Your task to perform on an android device: turn off smart reply in the gmail app Image 0: 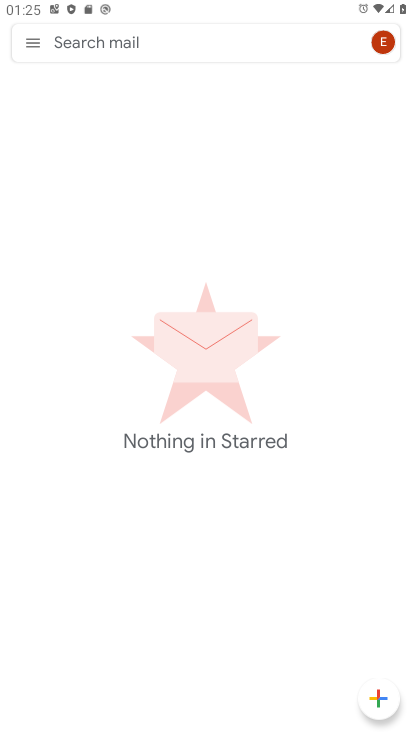
Step 0: press home button
Your task to perform on an android device: turn off smart reply in the gmail app Image 1: 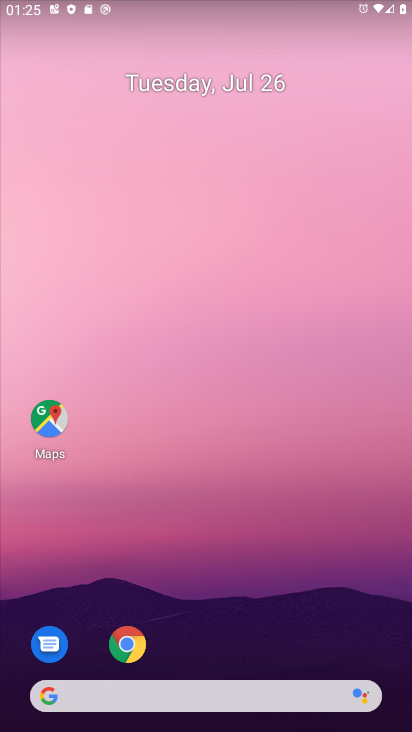
Step 1: drag from (192, 583) to (210, 283)
Your task to perform on an android device: turn off smart reply in the gmail app Image 2: 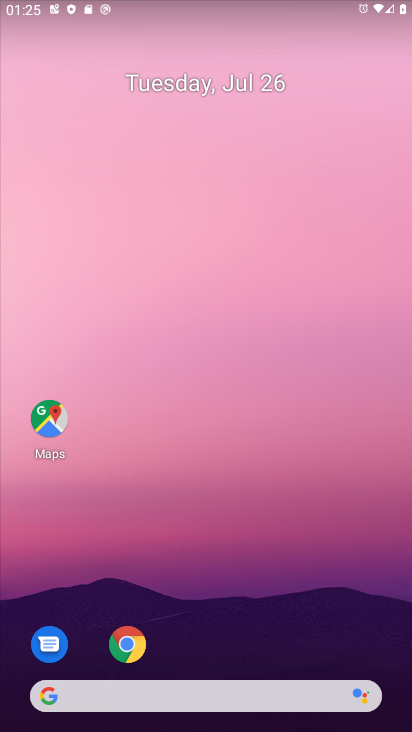
Step 2: drag from (205, 606) to (235, 252)
Your task to perform on an android device: turn off smart reply in the gmail app Image 3: 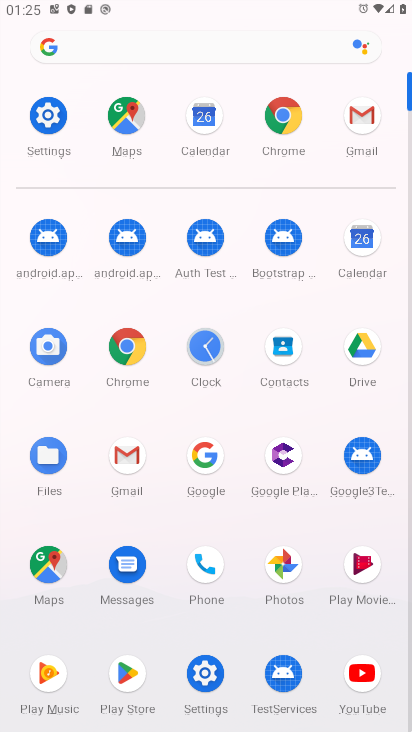
Step 3: click (122, 446)
Your task to perform on an android device: turn off smart reply in the gmail app Image 4: 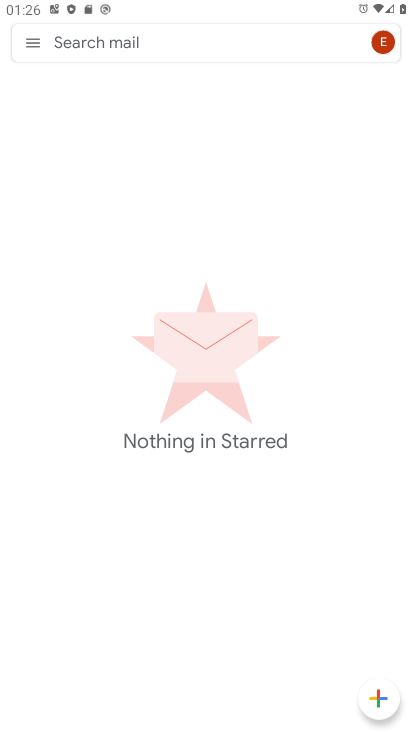
Step 4: click (42, 37)
Your task to perform on an android device: turn off smart reply in the gmail app Image 5: 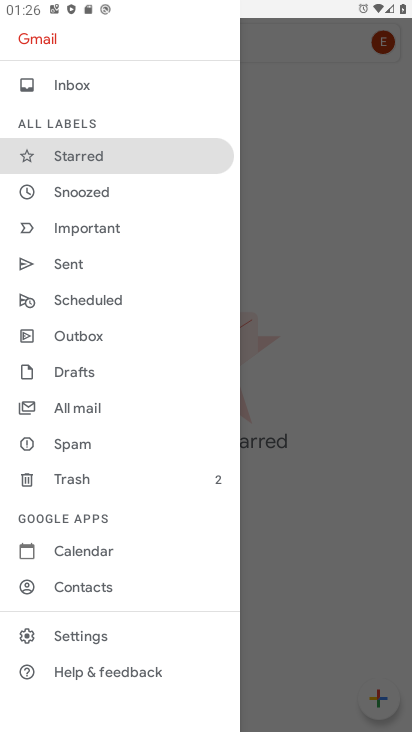
Step 5: click (81, 641)
Your task to perform on an android device: turn off smart reply in the gmail app Image 6: 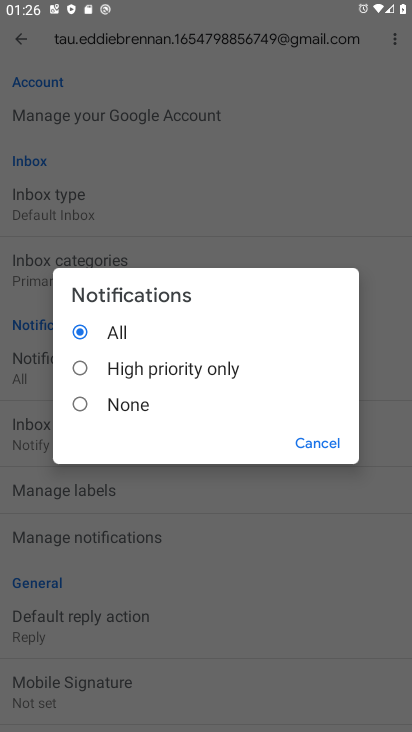
Step 6: click (303, 439)
Your task to perform on an android device: turn off smart reply in the gmail app Image 7: 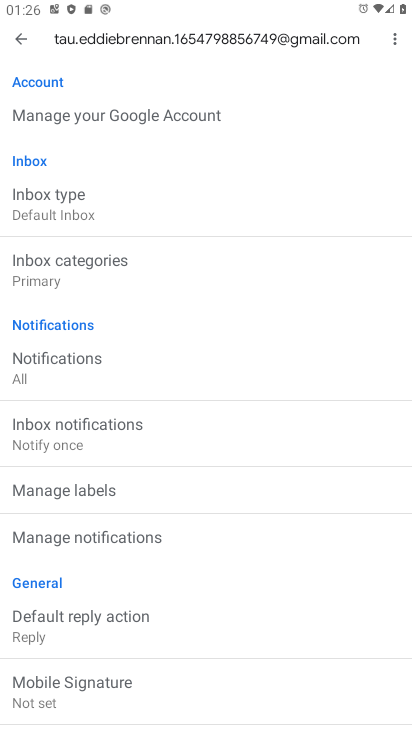
Step 7: drag from (226, 501) to (241, 164)
Your task to perform on an android device: turn off smart reply in the gmail app Image 8: 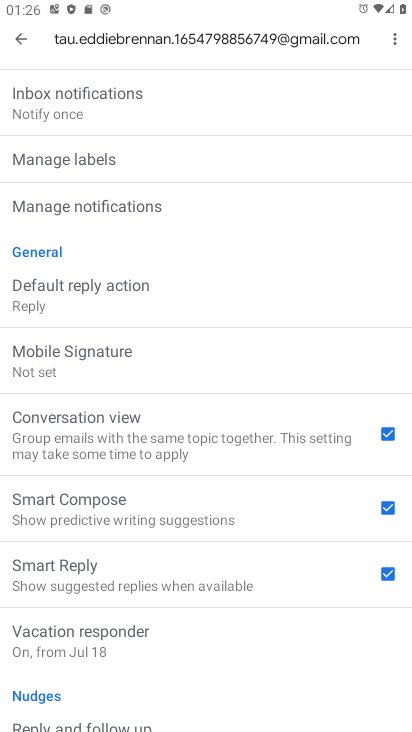
Step 8: click (371, 581)
Your task to perform on an android device: turn off smart reply in the gmail app Image 9: 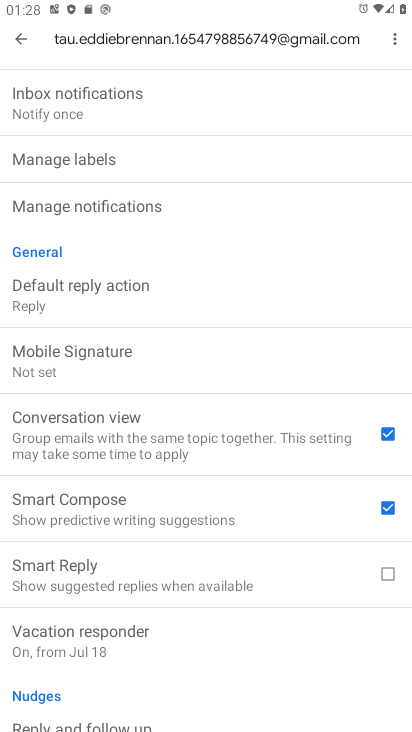
Step 9: task complete